Your task to perform on an android device: Do I have any events this weekend? Image 0: 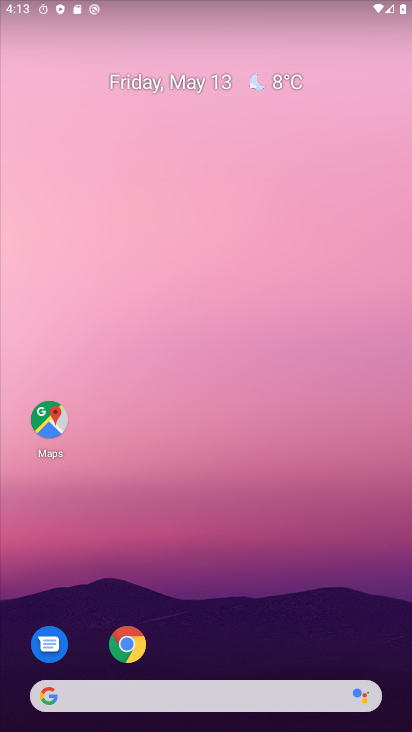
Step 0: drag from (243, 658) to (169, 105)
Your task to perform on an android device: Do I have any events this weekend? Image 1: 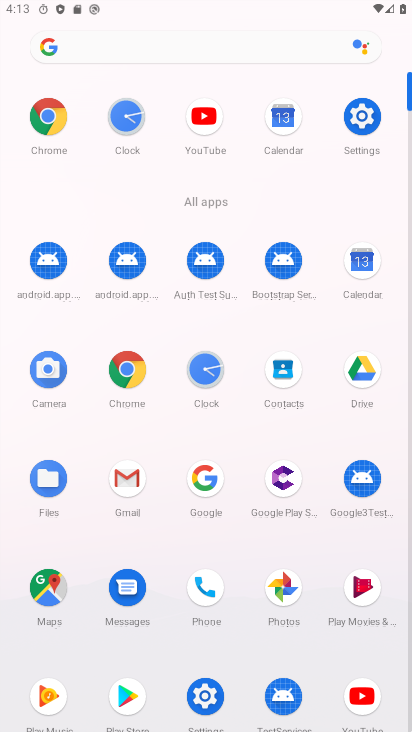
Step 1: click (272, 119)
Your task to perform on an android device: Do I have any events this weekend? Image 2: 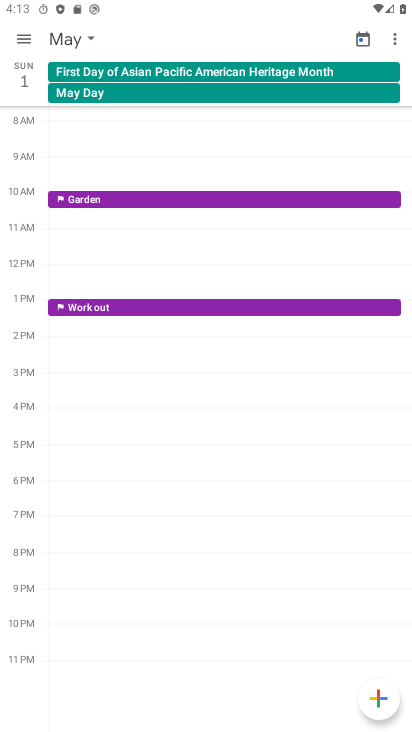
Step 2: click (61, 34)
Your task to perform on an android device: Do I have any events this weekend? Image 3: 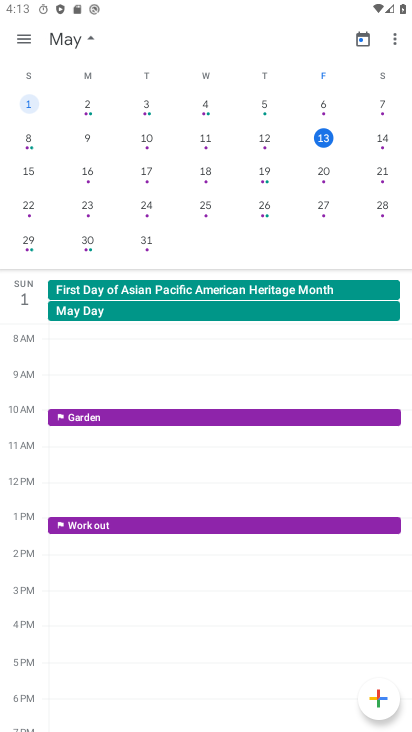
Step 3: click (316, 134)
Your task to perform on an android device: Do I have any events this weekend? Image 4: 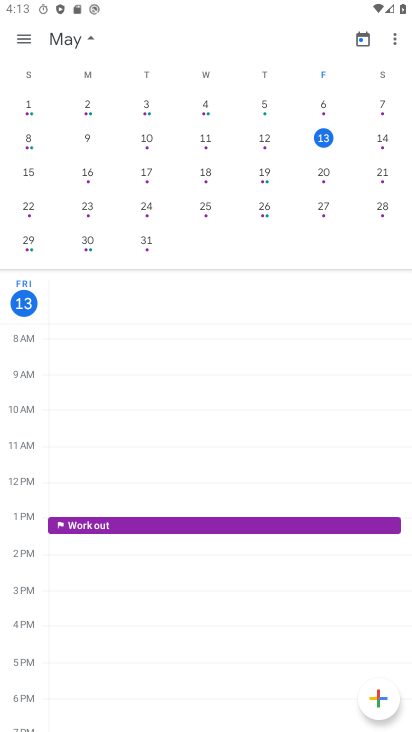
Step 4: click (22, 27)
Your task to perform on an android device: Do I have any events this weekend? Image 5: 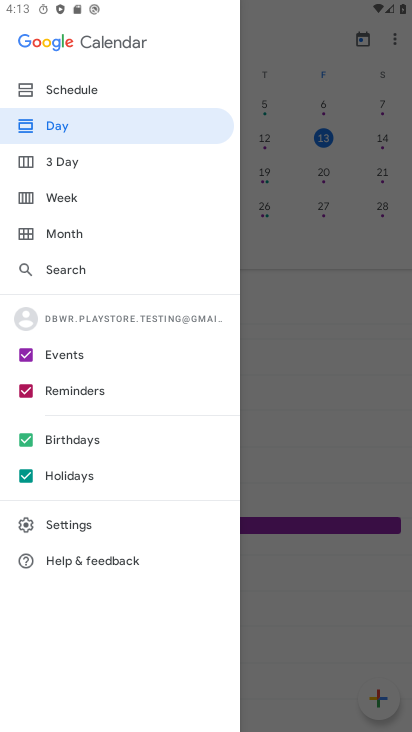
Step 5: click (85, 209)
Your task to perform on an android device: Do I have any events this weekend? Image 6: 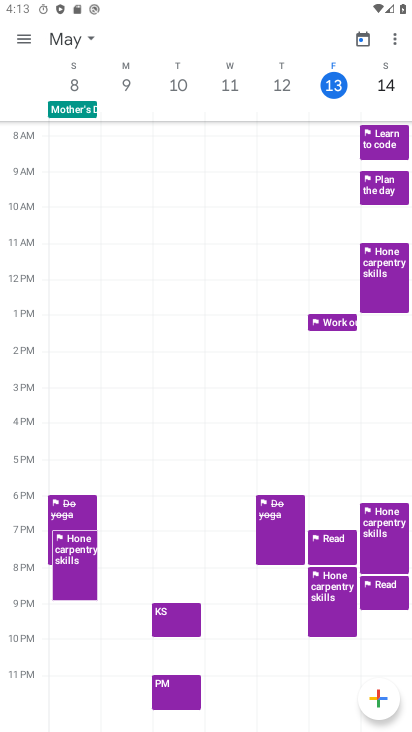
Step 6: task complete